Your task to perform on an android device: turn on javascript in the chrome app Image 0: 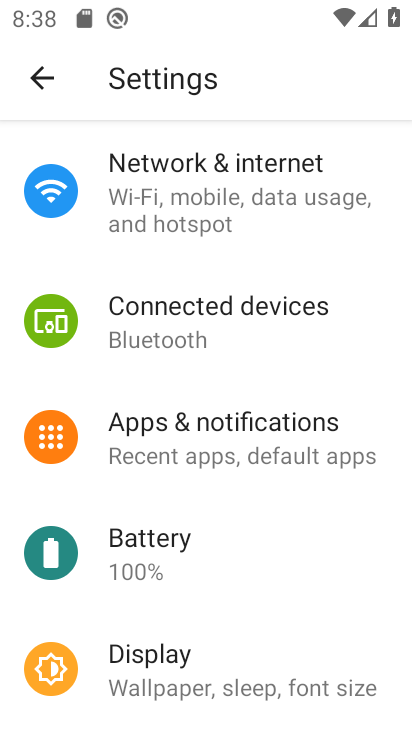
Step 0: press home button
Your task to perform on an android device: turn on javascript in the chrome app Image 1: 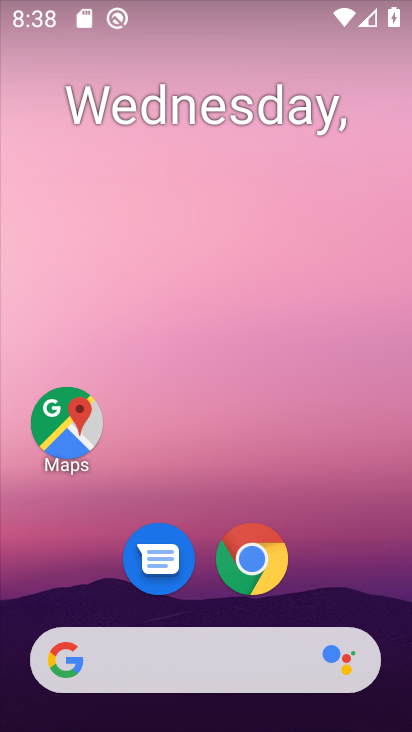
Step 1: drag from (369, 588) to (382, 178)
Your task to perform on an android device: turn on javascript in the chrome app Image 2: 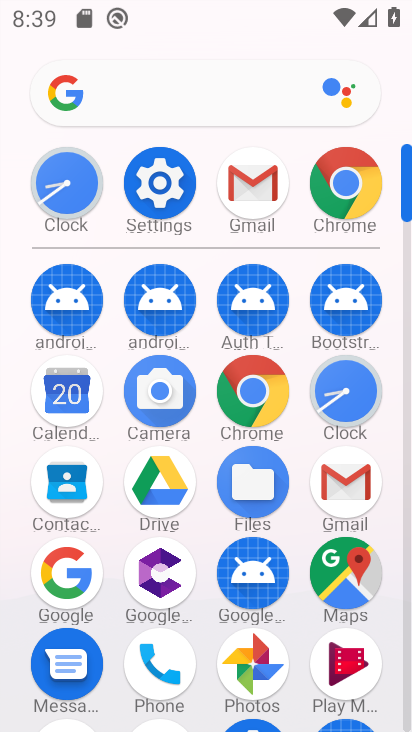
Step 2: click (257, 399)
Your task to perform on an android device: turn on javascript in the chrome app Image 3: 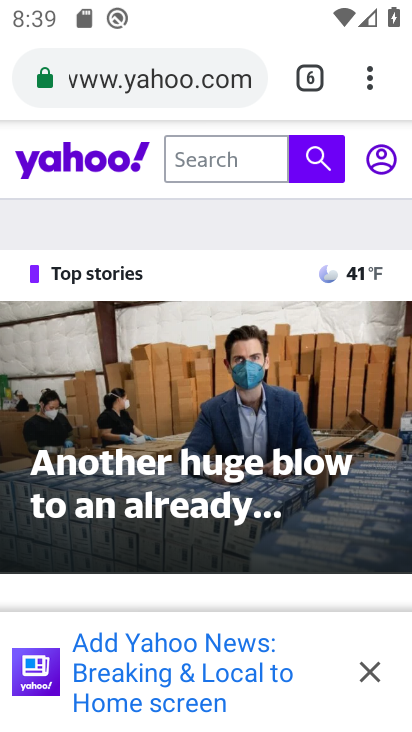
Step 3: drag from (368, 97) to (157, 623)
Your task to perform on an android device: turn on javascript in the chrome app Image 4: 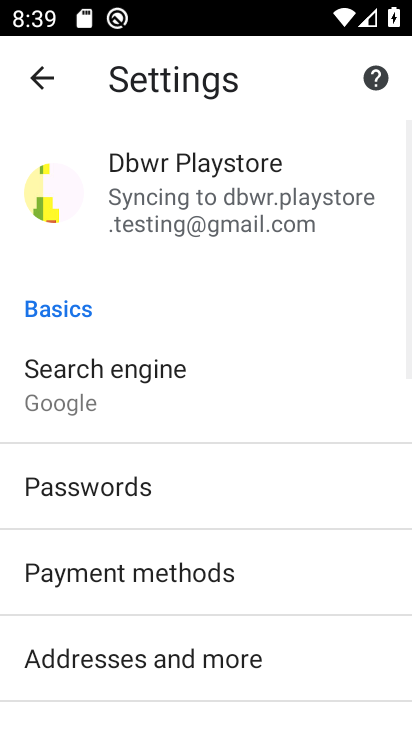
Step 4: drag from (292, 669) to (313, 384)
Your task to perform on an android device: turn on javascript in the chrome app Image 5: 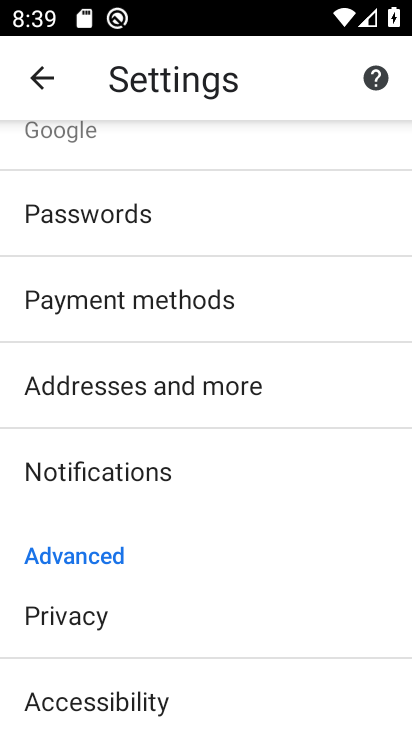
Step 5: drag from (299, 625) to (319, 309)
Your task to perform on an android device: turn on javascript in the chrome app Image 6: 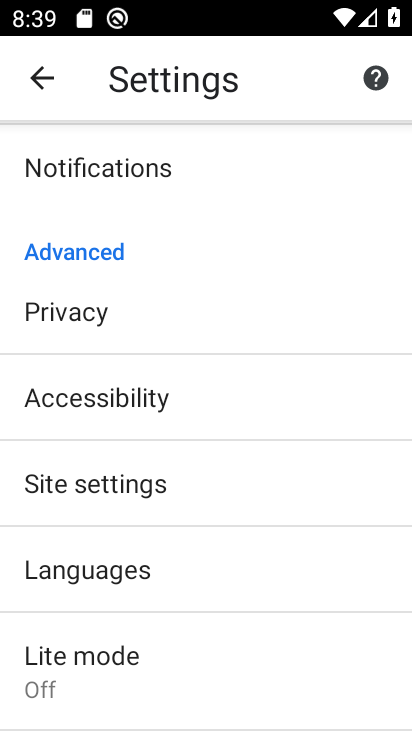
Step 6: click (159, 479)
Your task to perform on an android device: turn on javascript in the chrome app Image 7: 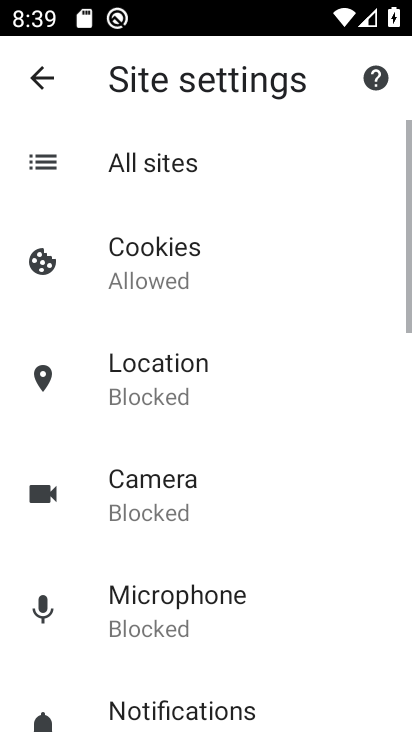
Step 7: drag from (282, 665) to (316, 320)
Your task to perform on an android device: turn on javascript in the chrome app Image 8: 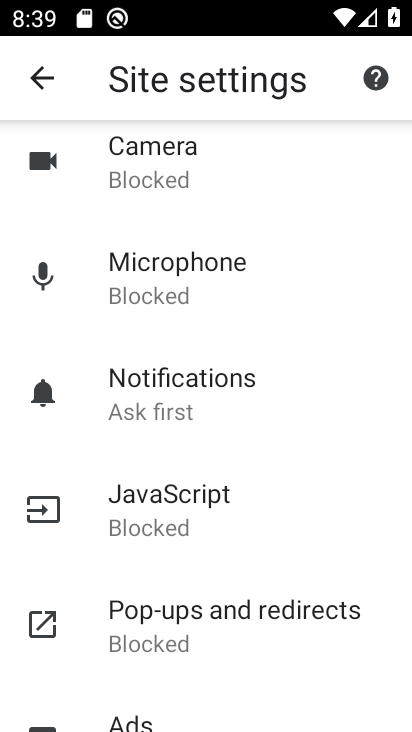
Step 8: click (226, 504)
Your task to perform on an android device: turn on javascript in the chrome app Image 9: 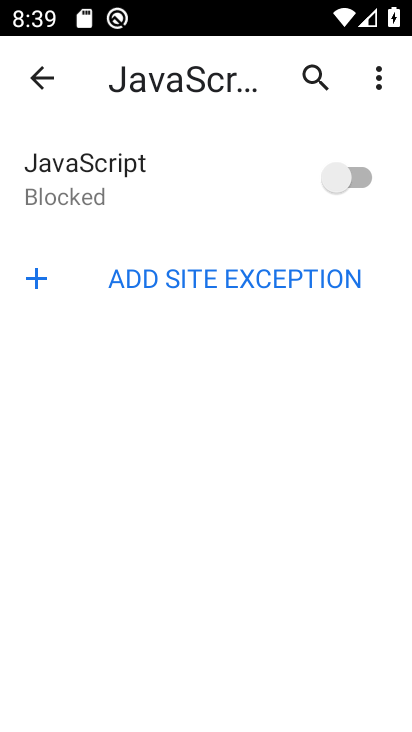
Step 9: click (369, 166)
Your task to perform on an android device: turn on javascript in the chrome app Image 10: 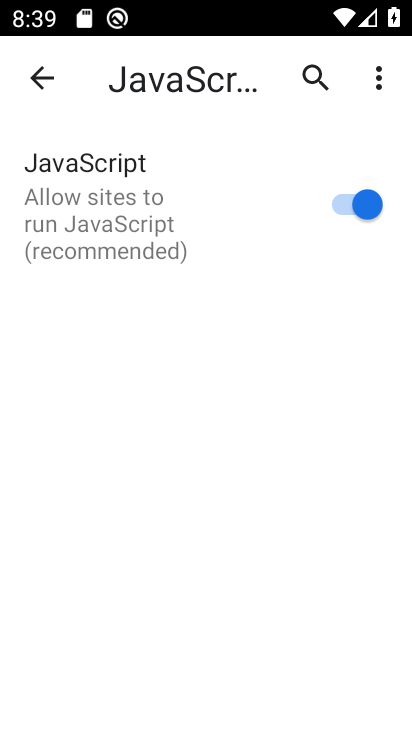
Step 10: task complete